Your task to perform on an android device: turn off airplane mode Image 0: 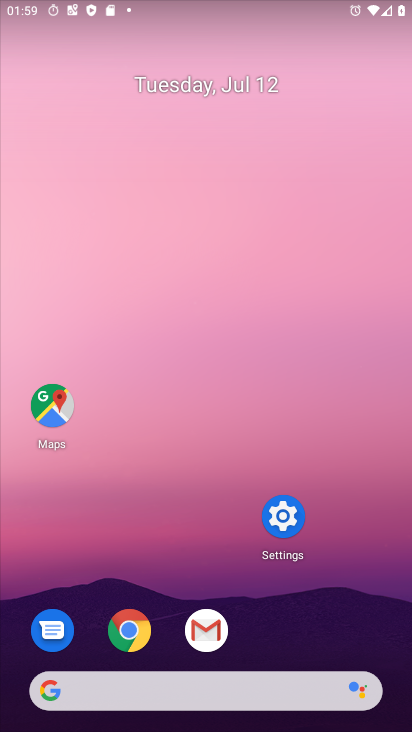
Step 0: click (277, 504)
Your task to perform on an android device: turn off airplane mode Image 1: 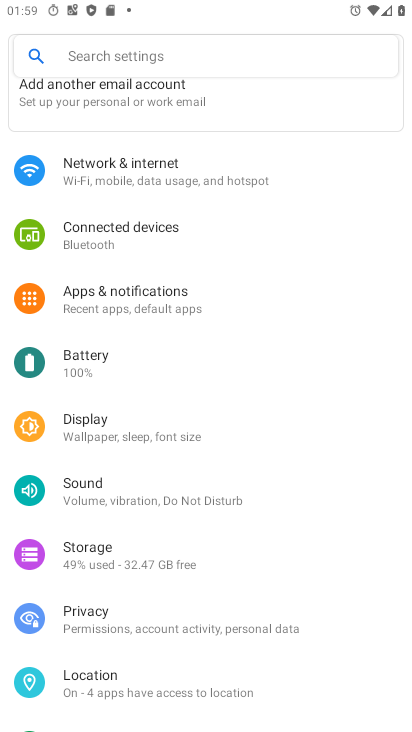
Step 1: click (157, 175)
Your task to perform on an android device: turn off airplane mode Image 2: 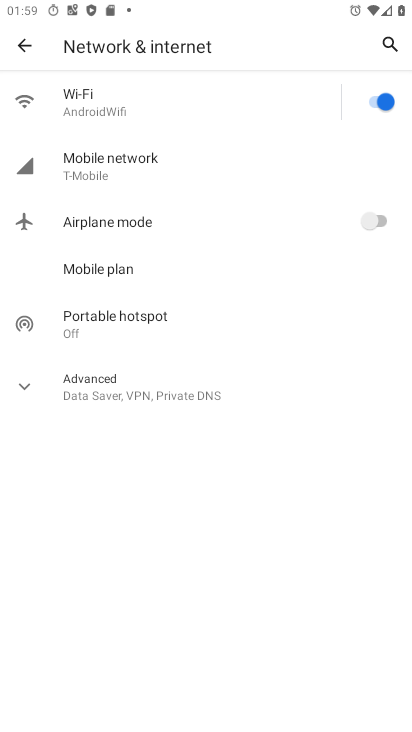
Step 2: click (386, 228)
Your task to perform on an android device: turn off airplane mode Image 3: 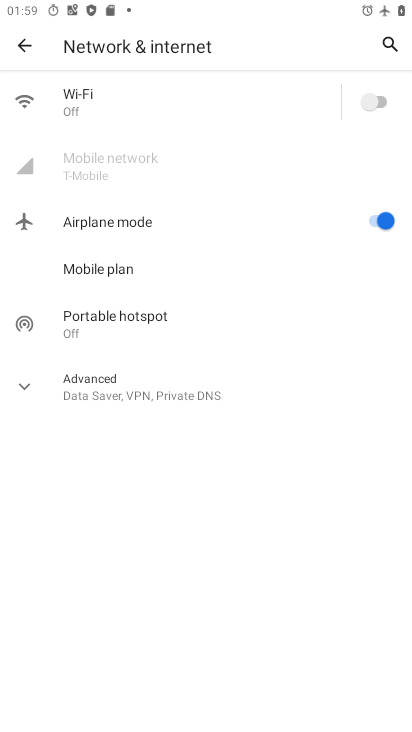
Step 3: click (373, 220)
Your task to perform on an android device: turn off airplane mode Image 4: 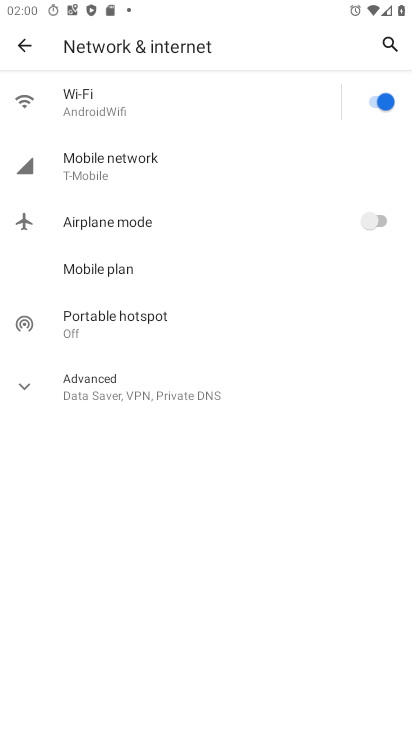
Step 4: task complete